Your task to perform on an android device: set the timer Image 0: 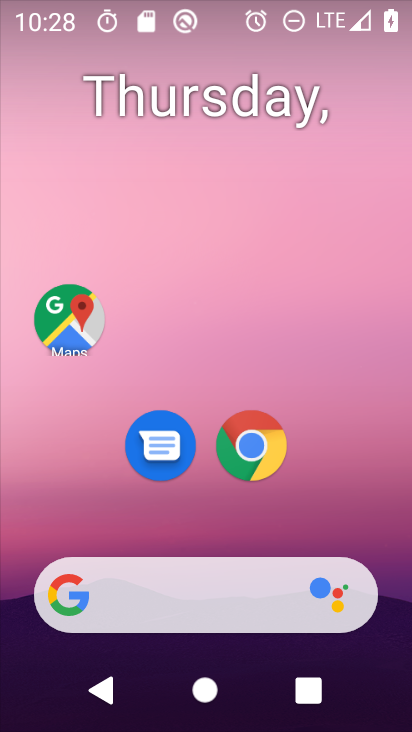
Step 0: click (257, 434)
Your task to perform on an android device: set the timer Image 1: 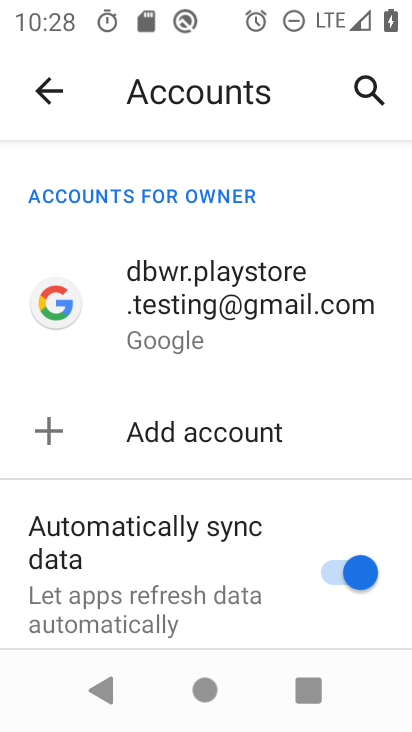
Step 1: press home button
Your task to perform on an android device: set the timer Image 2: 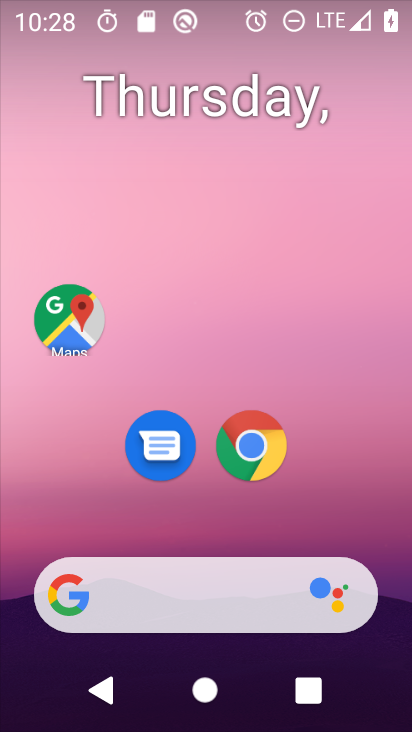
Step 2: drag from (218, 448) to (242, 123)
Your task to perform on an android device: set the timer Image 3: 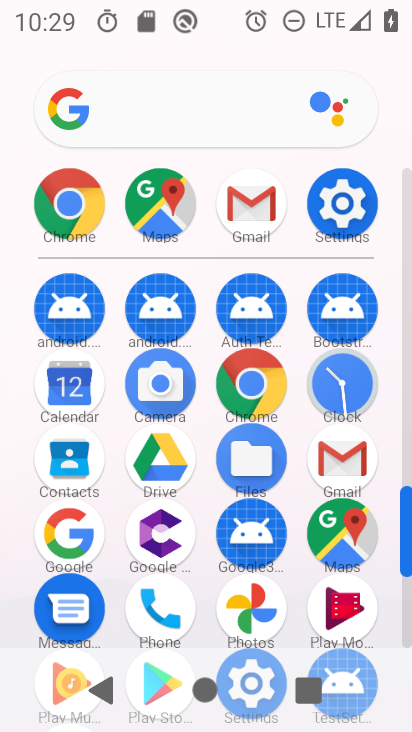
Step 3: click (351, 385)
Your task to perform on an android device: set the timer Image 4: 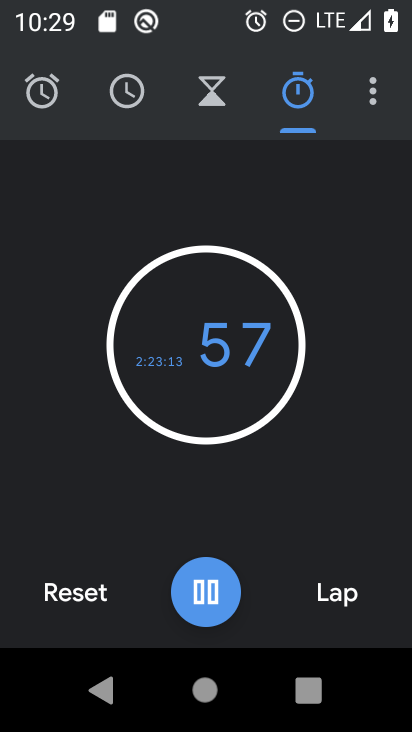
Step 4: click (382, 108)
Your task to perform on an android device: set the timer Image 5: 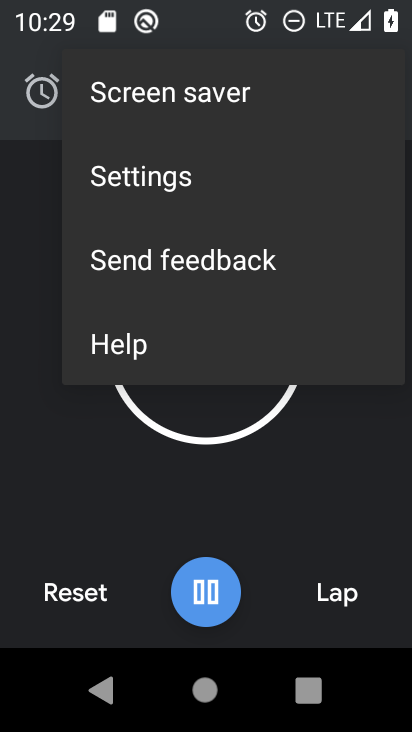
Step 5: click (205, 169)
Your task to perform on an android device: set the timer Image 6: 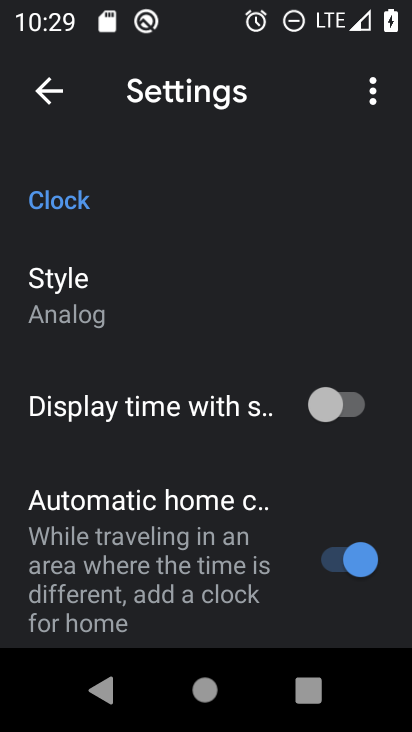
Step 6: click (75, 98)
Your task to perform on an android device: set the timer Image 7: 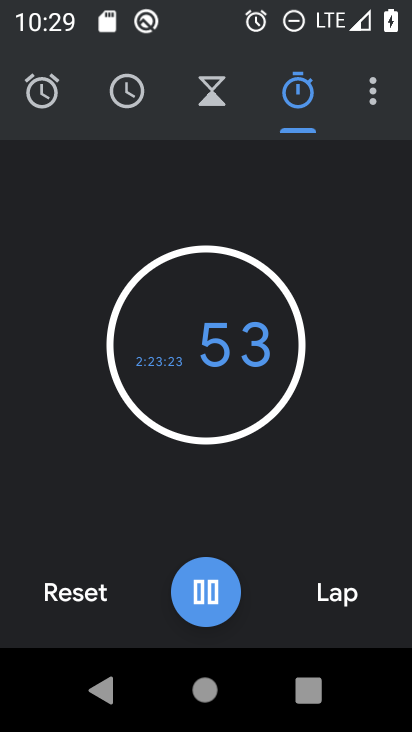
Step 7: click (204, 107)
Your task to perform on an android device: set the timer Image 8: 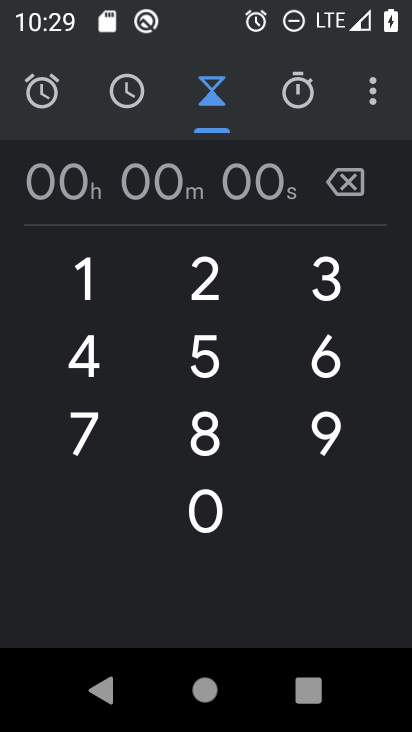
Step 8: click (197, 325)
Your task to perform on an android device: set the timer Image 9: 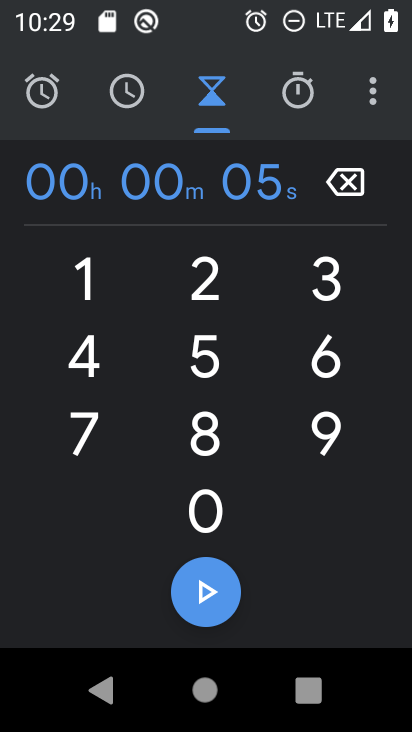
Step 9: click (324, 281)
Your task to perform on an android device: set the timer Image 10: 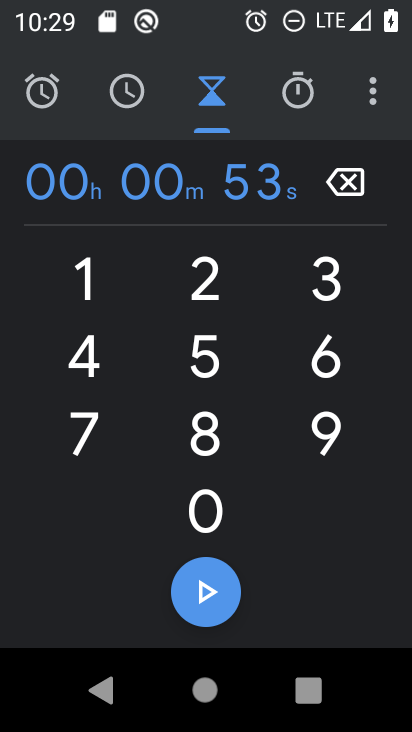
Step 10: click (217, 579)
Your task to perform on an android device: set the timer Image 11: 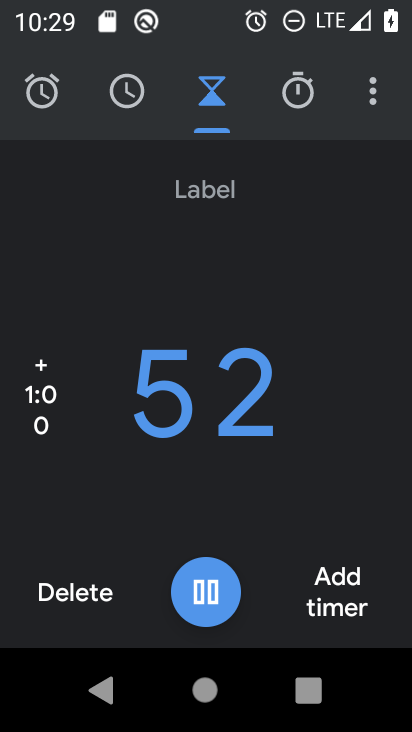
Step 11: task complete